Your task to perform on an android device: Go to network settings Image 0: 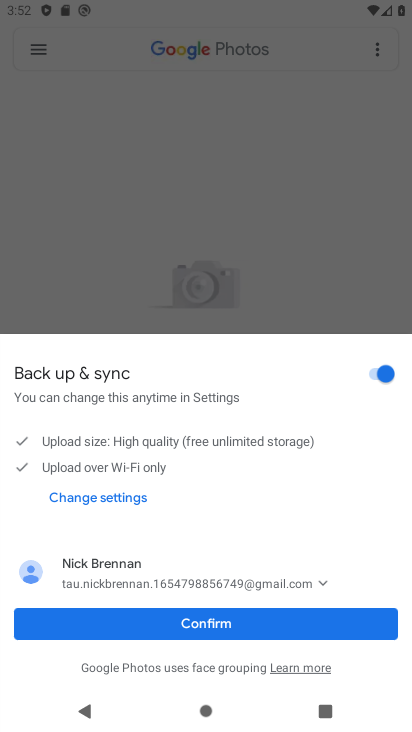
Step 0: press home button
Your task to perform on an android device: Go to network settings Image 1: 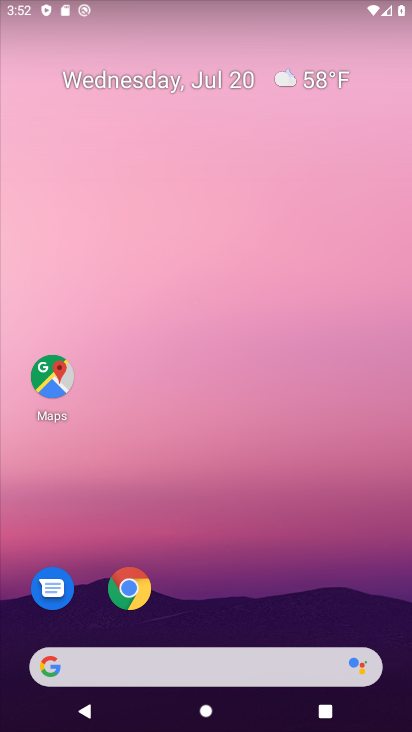
Step 1: drag from (200, 621) to (263, 126)
Your task to perform on an android device: Go to network settings Image 2: 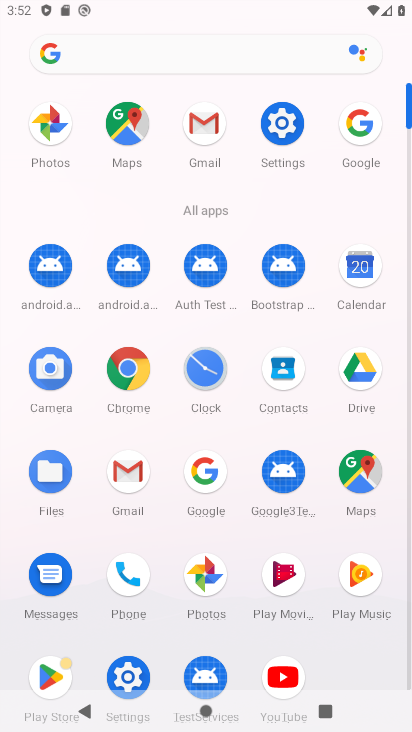
Step 2: click (270, 130)
Your task to perform on an android device: Go to network settings Image 3: 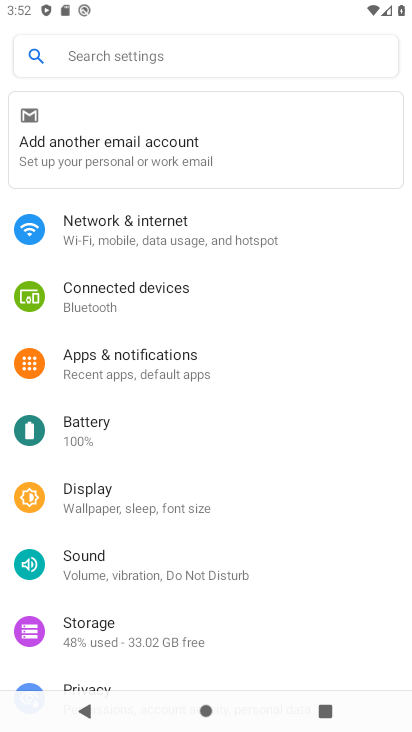
Step 3: click (114, 232)
Your task to perform on an android device: Go to network settings Image 4: 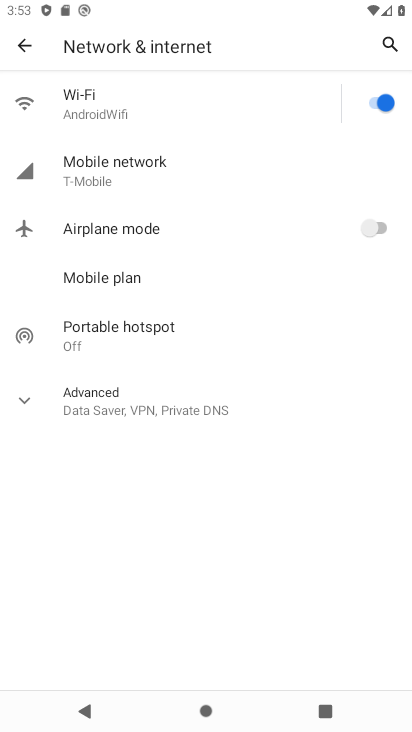
Step 4: task complete